Your task to perform on an android device: turn on airplane mode Image 0: 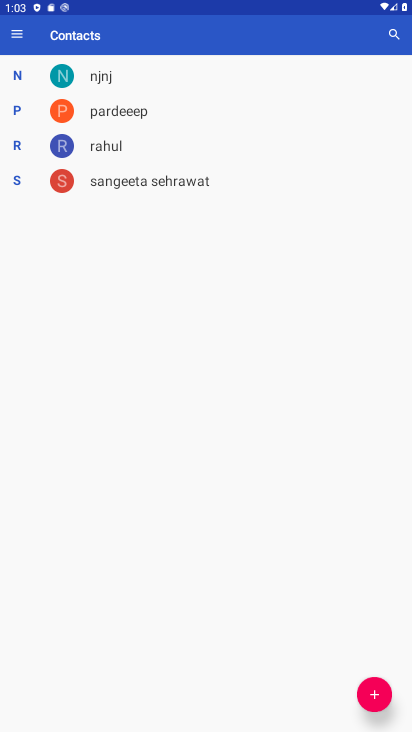
Step 0: press back button
Your task to perform on an android device: turn on airplane mode Image 1: 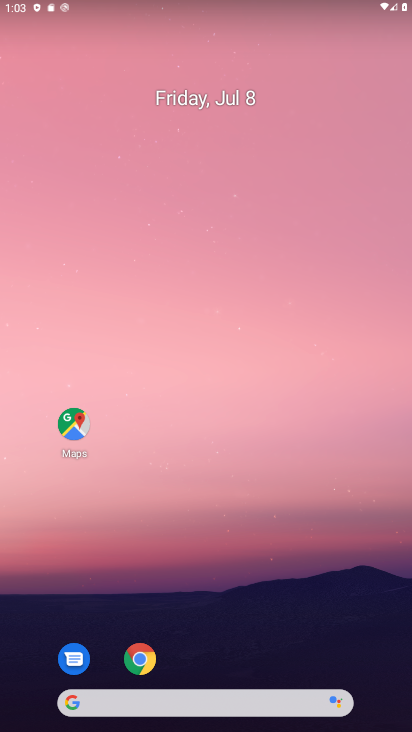
Step 1: press home button
Your task to perform on an android device: turn on airplane mode Image 2: 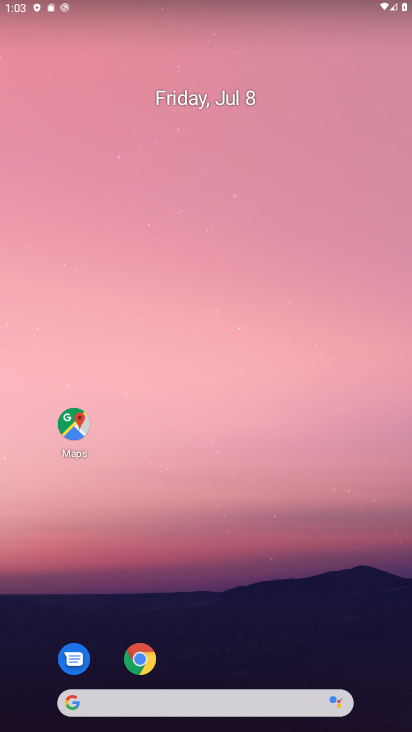
Step 2: drag from (385, 4) to (340, 723)
Your task to perform on an android device: turn on airplane mode Image 3: 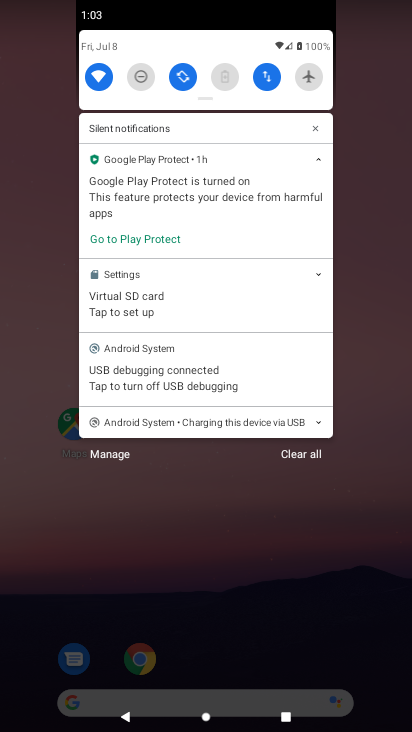
Step 3: drag from (263, 159) to (287, 572)
Your task to perform on an android device: turn on airplane mode Image 4: 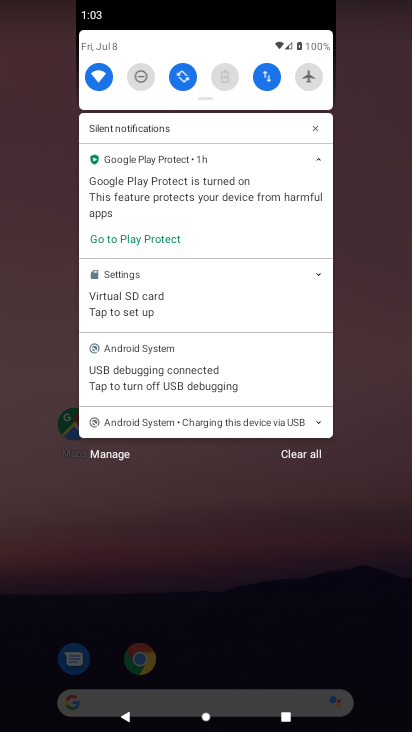
Step 4: drag from (250, 166) to (263, 607)
Your task to perform on an android device: turn on airplane mode Image 5: 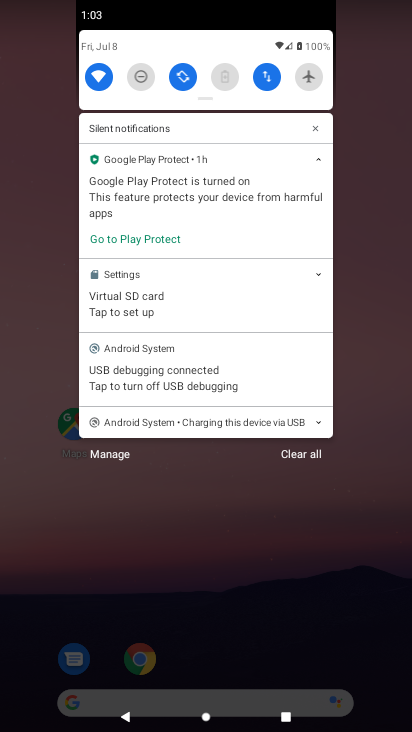
Step 5: click (272, 534)
Your task to perform on an android device: turn on airplane mode Image 6: 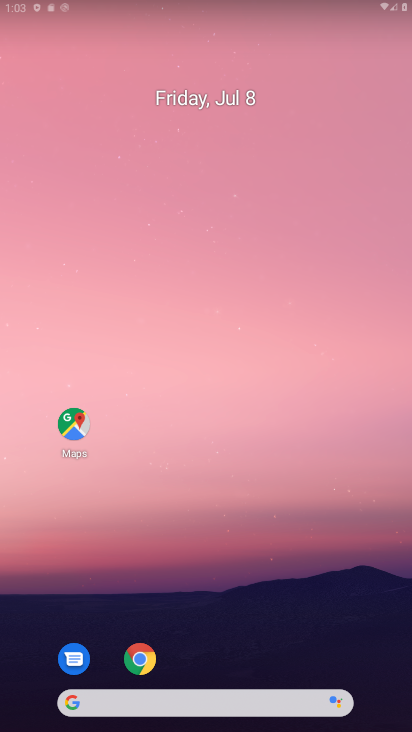
Step 6: drag from (249, 594) to (331, 11)
Your task to perform on an android device: turn on airplane mode Image 7: 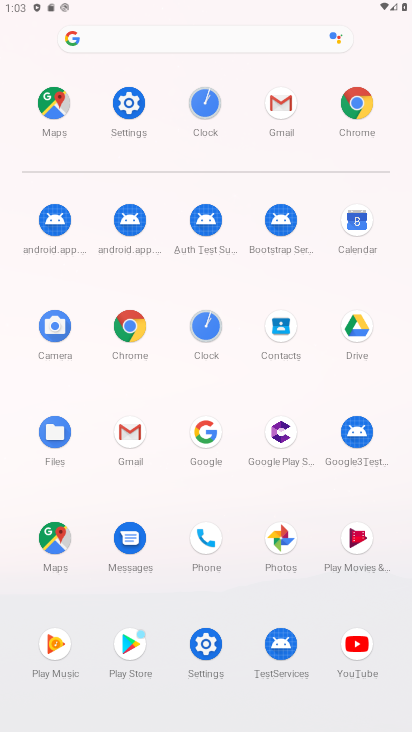
Step 7: click (212, 645)
Your task to perform on an android device: turn on airplane mode Image 8: 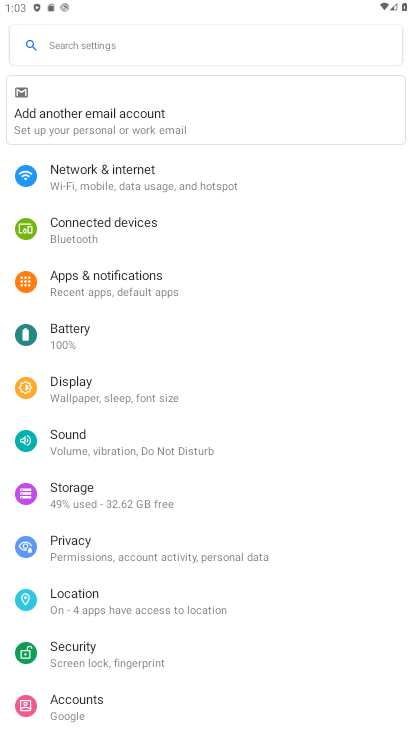
Step 8: click (179, 174)
Your task to perform on an android device: turn on airplane mode Image 9: 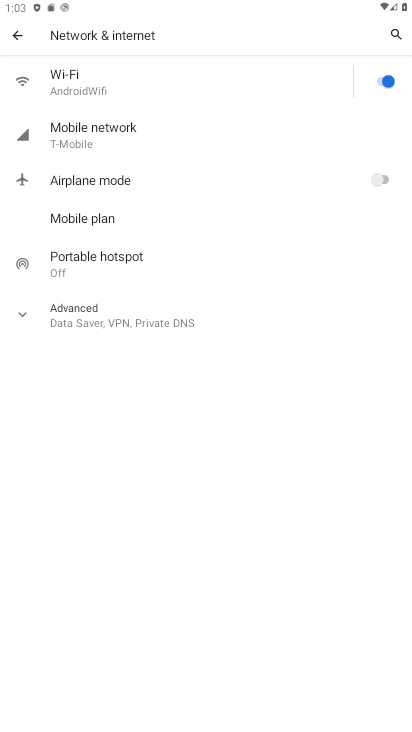
Step 9: click (367, 189)
Your task to perform on an android device: turn on airplane mode Image 10: 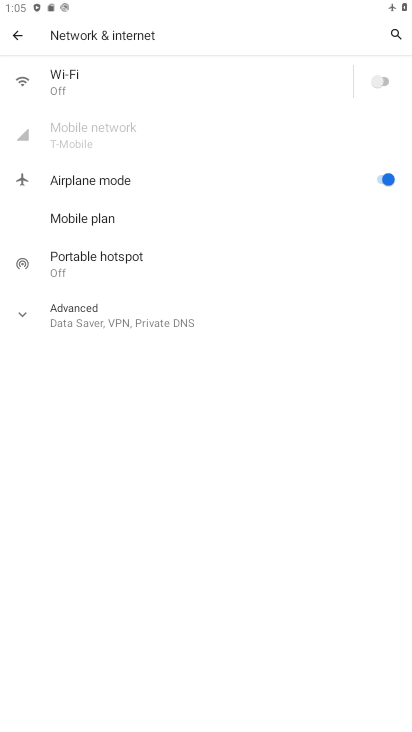
Step 10: task complete